Your task to perform on an android device: Search for seafood restaurants on Google Maps Image 0: 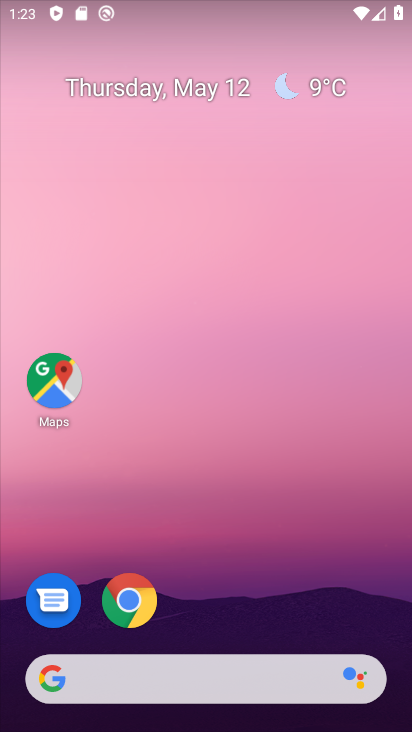
Step 0: click (137, 591)
Your task to perform on an android device: Search for seafood restaurants on Google Maps Image 1: 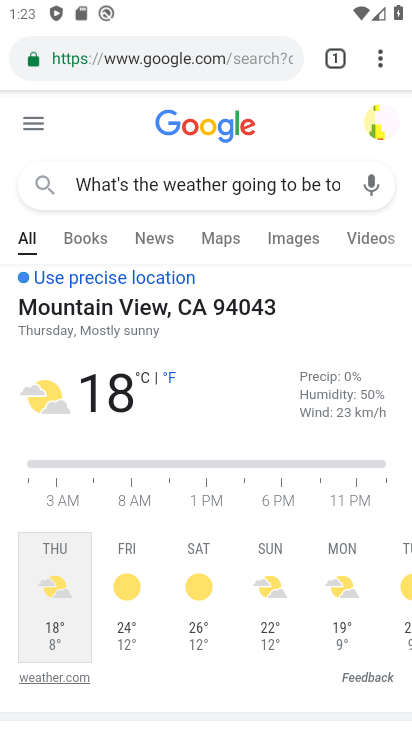
Step 1: click (178, 61)
Your task to perform on an android device: Search for seafood restaurants on Google Maps Image 2: 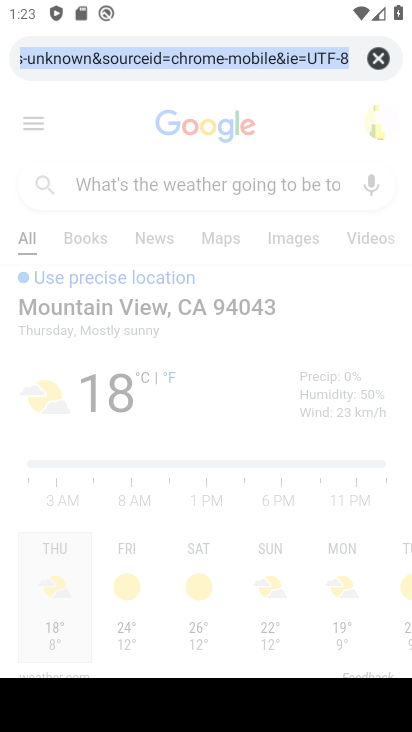
Step 2: click (377, 61)
Your task to perform on an android device: Search for seafood restaurants on Google Maps Image 3: 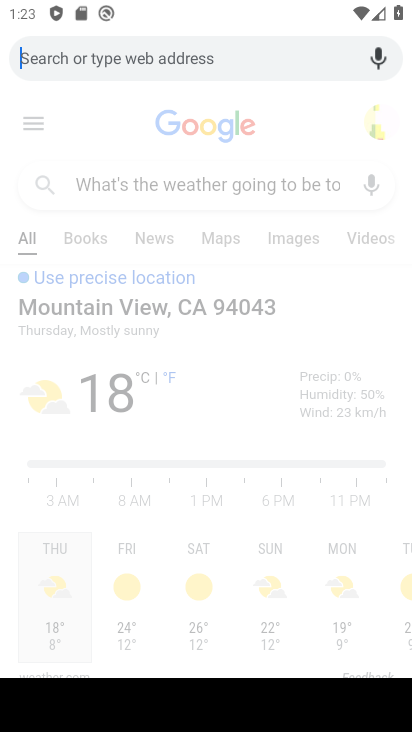
Step 3: press home button
Your task to perform on an android device: Search for seafood restaurants on Google Maps Image 4: 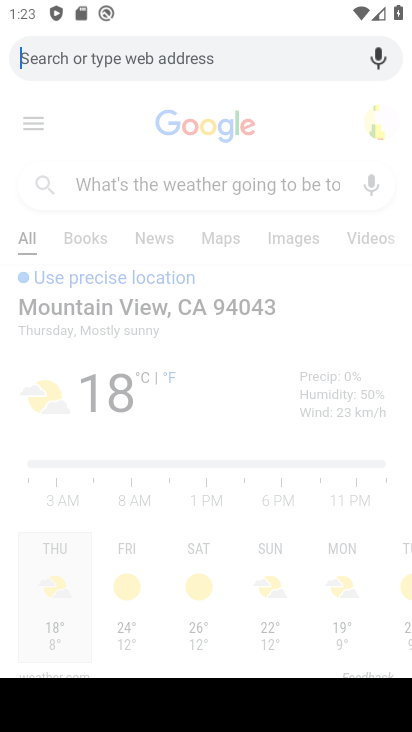
Step 4: type " seafood restaurants "
Your task to perform on an android device: Search for seafood restaurants on Google Maps Image 5: 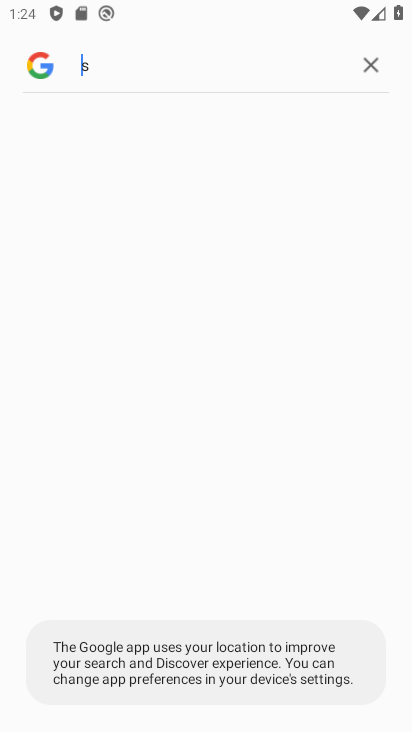
Step 5: press home button
Your task to perform on an android device: Search for seafood restaurants on Google Maps Image 6: 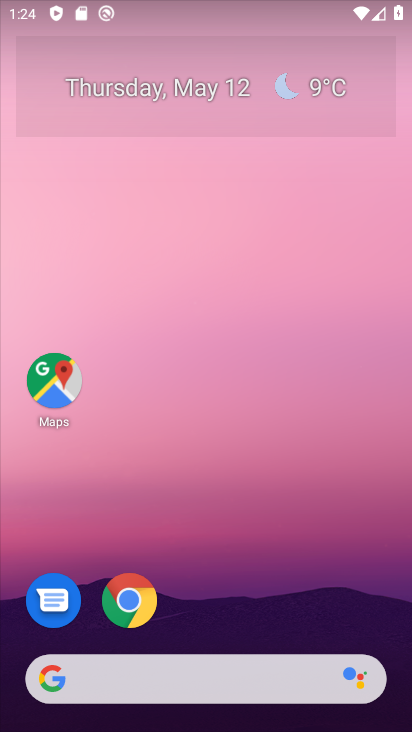
Step 6: click (39, 372)
Your task to perform on an android device: Search for seafood restaurants on Google Maps Image 7: 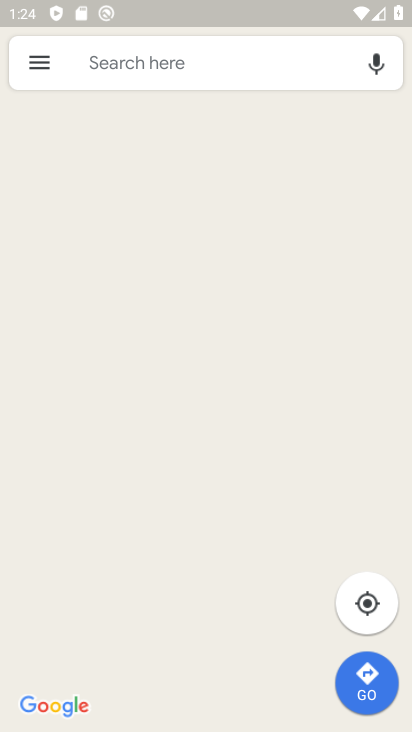
Step 7: click (193, 62)
Your task to perform on an android device: Search for seafood restaurants on Google Maps Image 8: 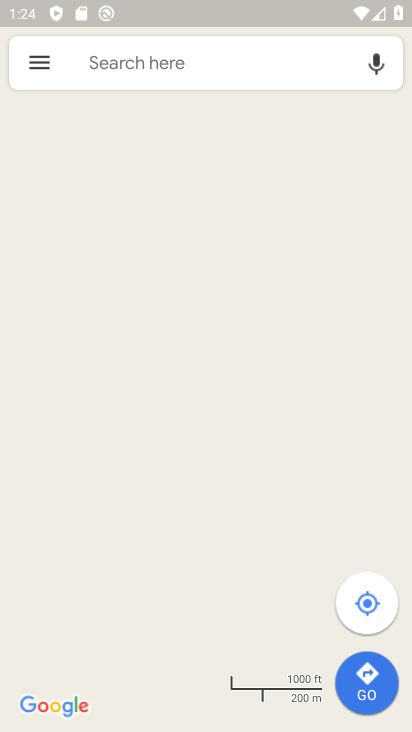
Step 8: click (193, 62)
Your task to perform on an android device: Search for seafood restaurants on Google Maps Image 9: 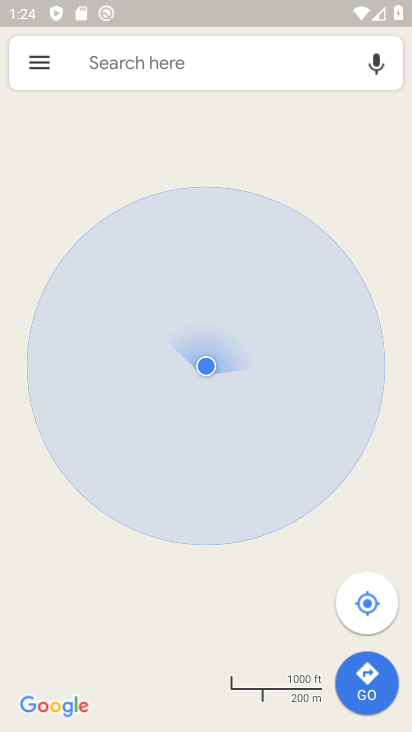
Step 9: click (193, 62)
Your task to perform on an android device: Search for seafood restaurants on Google Maps Image 10: 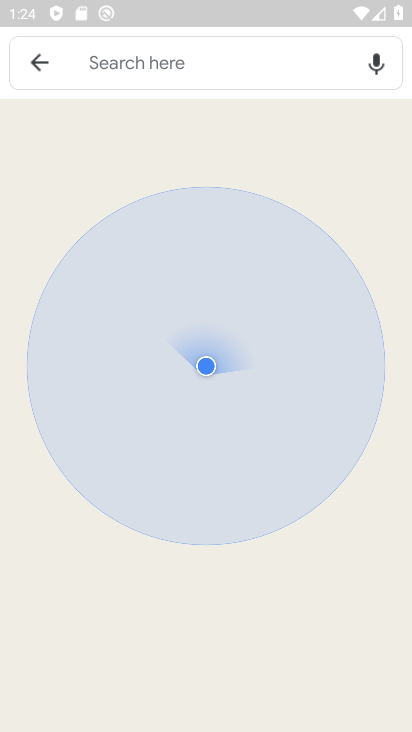
Step 10: click (193, 62)
Your task to perform on an android device: Search for seafood restaurants on Google Maps Image 11: 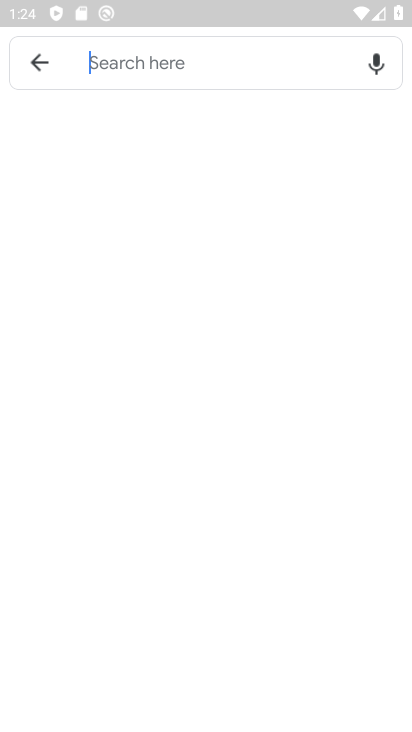
Step 11: click (193, 62)
Your task to perform on an android device: Search for seafood restaurants on Google Maps Image 12: 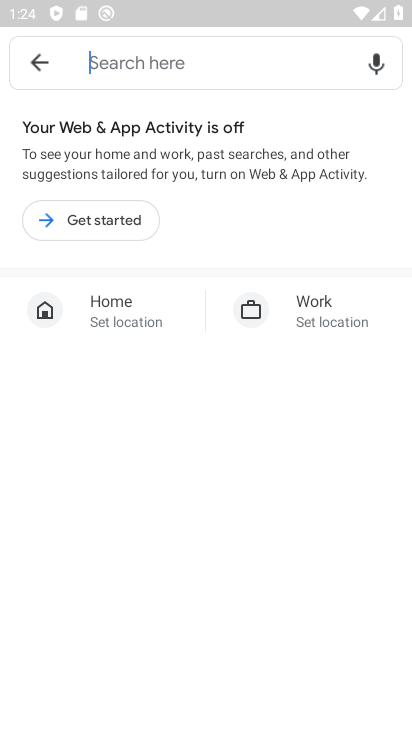
Step 12: click (193, 62)
Your task to perform on an android device: Search for seafood restaurants on Google Maps Image 13: 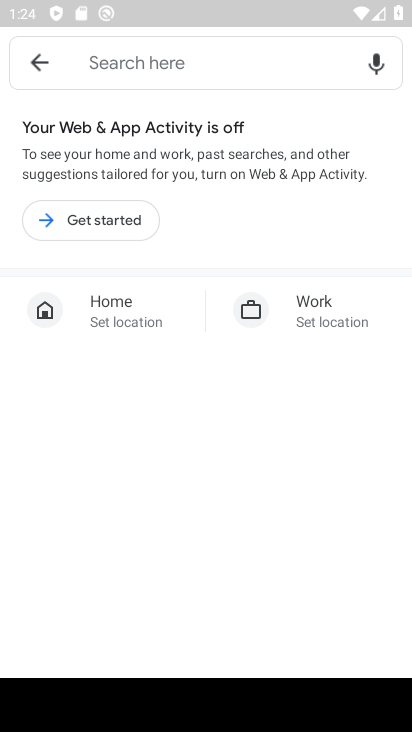
Step 13: click (193, 62)
Your task to perform on an android device: Search for seafood restaurants on Google Maps Image 14: 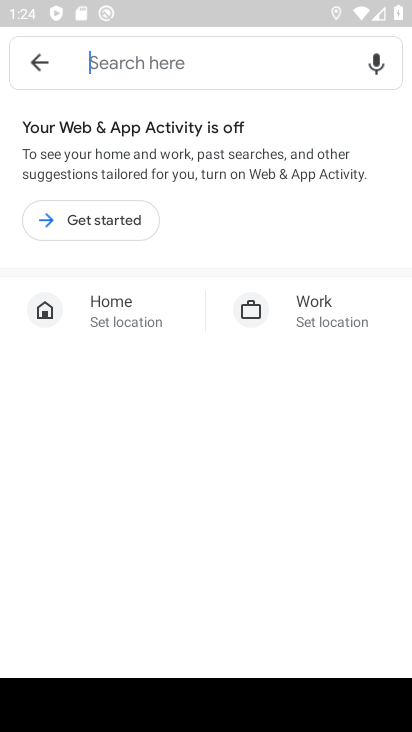
Step 14: type " seafood restaurants "
Your task to perform on an android device: Search for seafood restaurants on Google Maps Image 15: 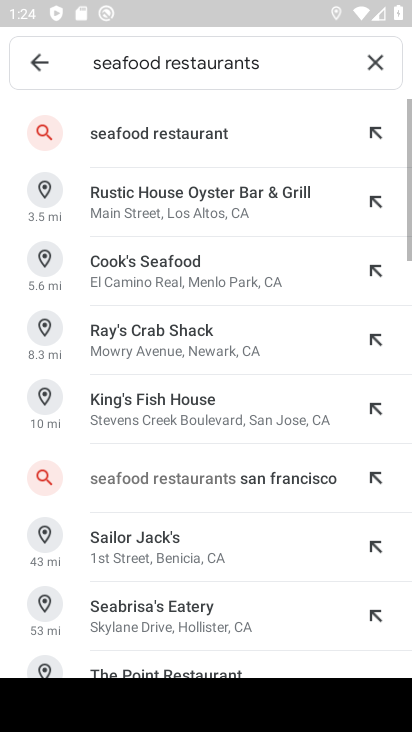
Step 15: click (138, 129)
Your task to perform on an android device: Search for seafood restaurants on Google Maps Image 16: 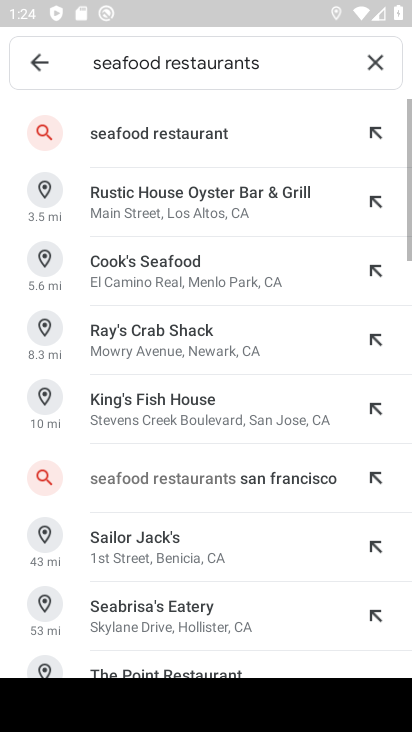
Step 16: click (138, 129)
Your task to perform on an android device: Search for seafood restaurants on Google Maps Image 17: 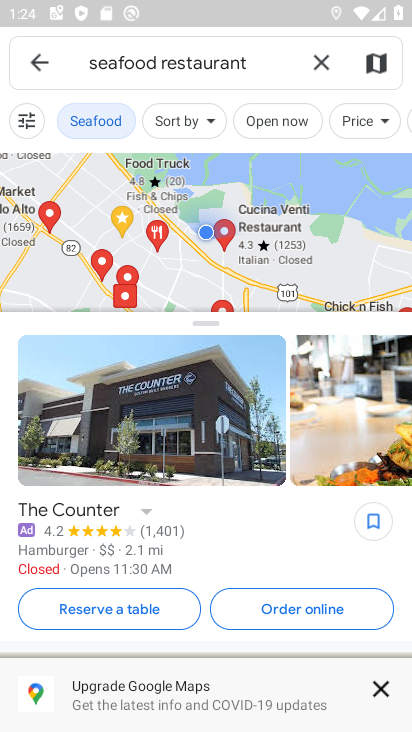
Step 17: task complete